Your task to perform on an android device: change keyboard looks Image 0: 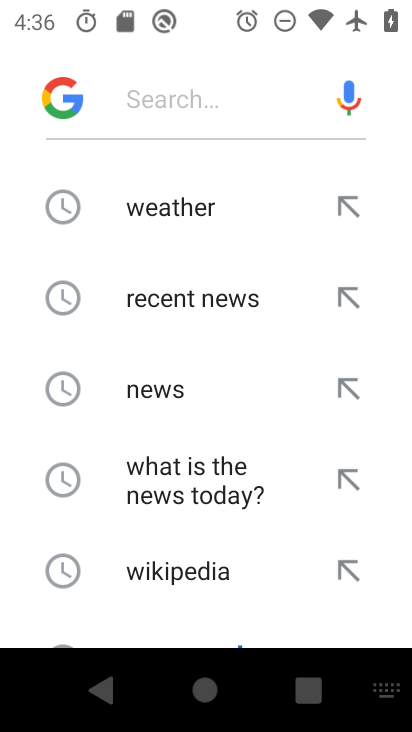
Step 0: press home button
Your task to perform on an android device: change keyboard looks Image 1: 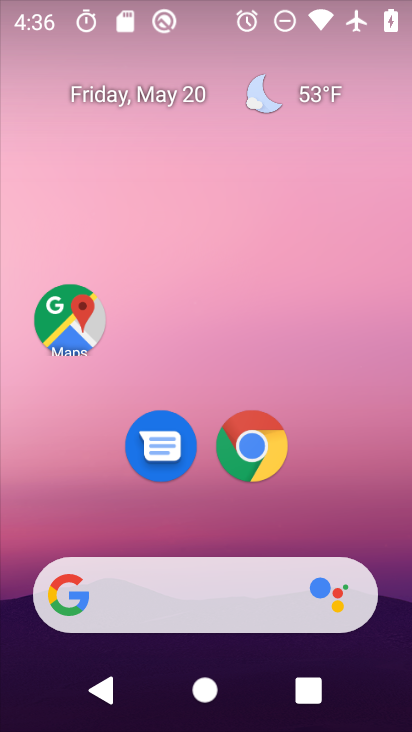
Step 1: drag from (338, 443) to (395, 43)
Your task to perform on an android device: change keyboard looks Image 2: 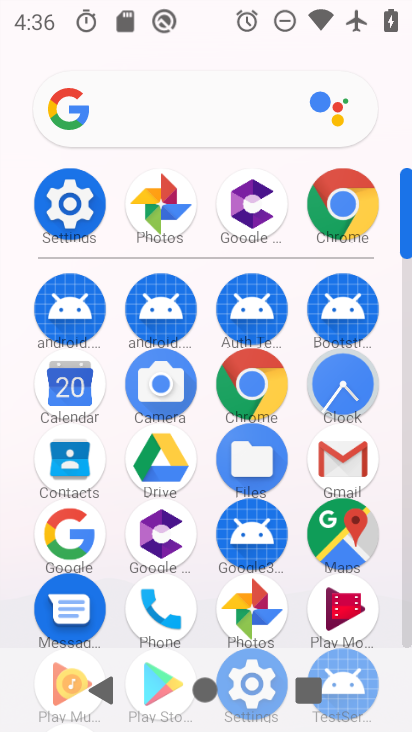
Step 2: click (80, 211)
Your task to perform on an android device: change keyboard looks Image 3: 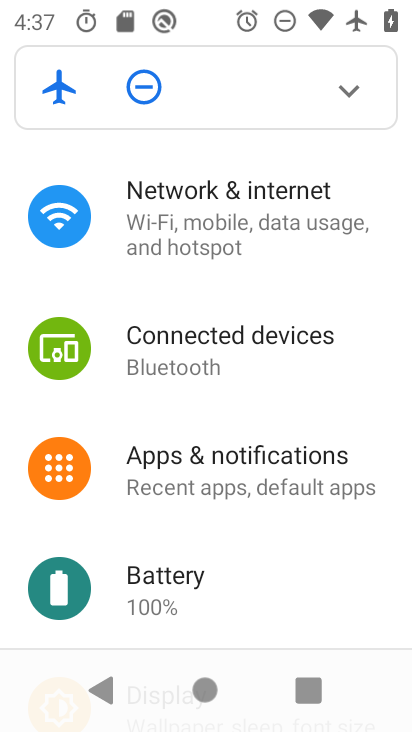
Step 3: drag from (269, 587) to (309, 195)
Your task to perform on an android device: change keyboard looks Image 4: 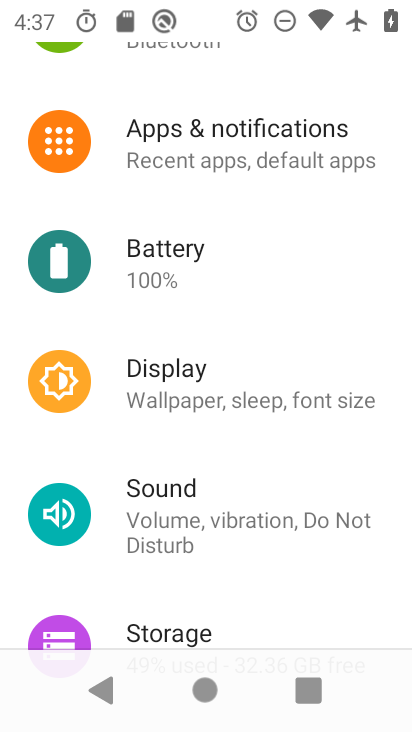
Step 4: drag from (291, 555) to (348, 124)
Your task to perform on an android device: change keyboard looks Image 5: 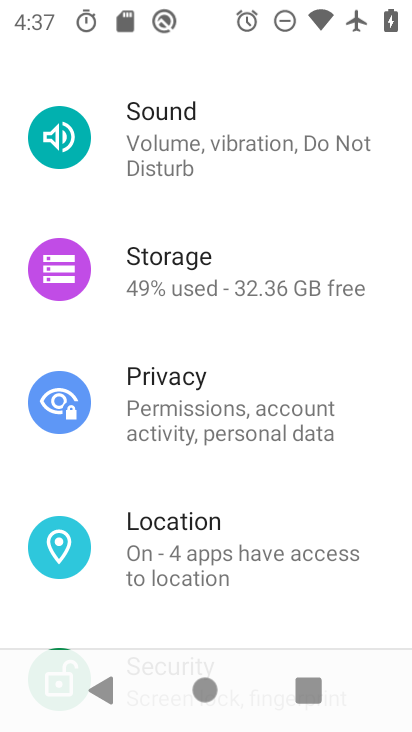
Step 5: drag from (277, 605) to (341, 204)
Your task to perform on an android device: change keyboard looks Image 6: 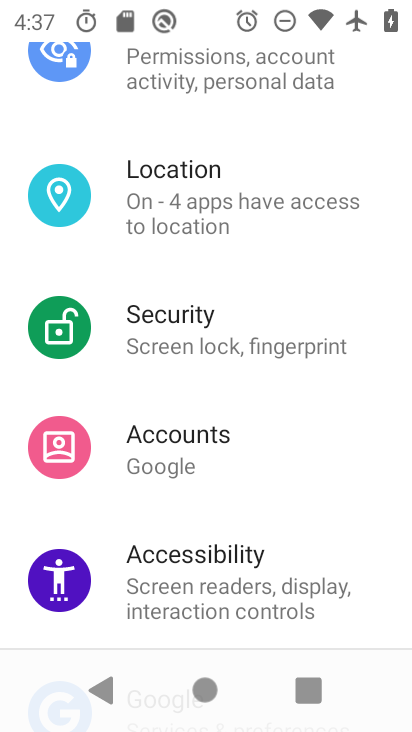
Step 6: drag from (239, 591) to (276, 200)
Your task to perform on an android device: change keyboard looks Image 7: 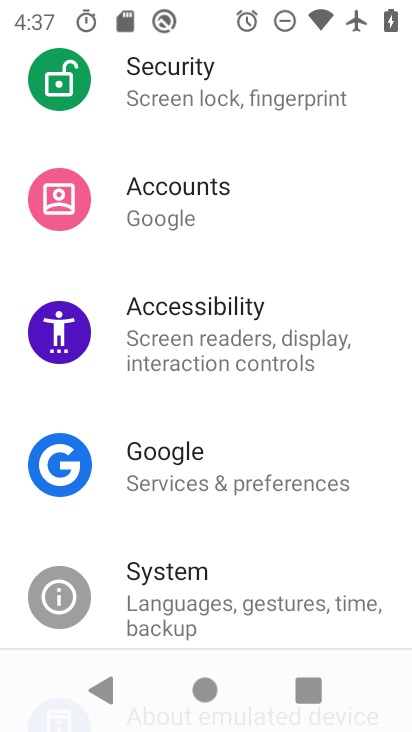
Step 7: drag from (249, 548) to (308, 185)
Your task to perform on an android device: change keyboard looks Image 8: 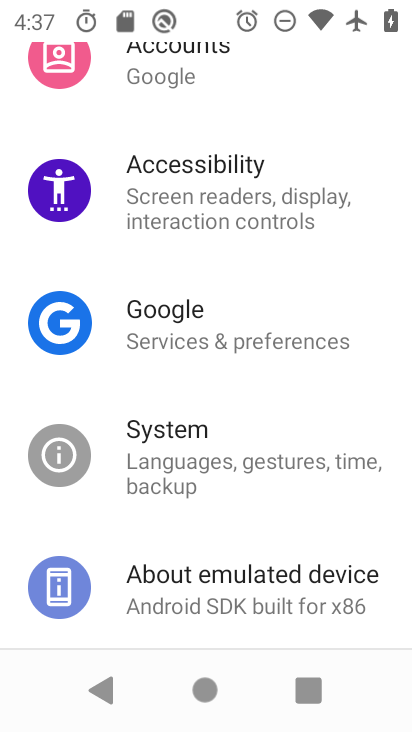
Step 8: click (221, 471)
Your task to perform on an android device: change keyboard looks Image 9: 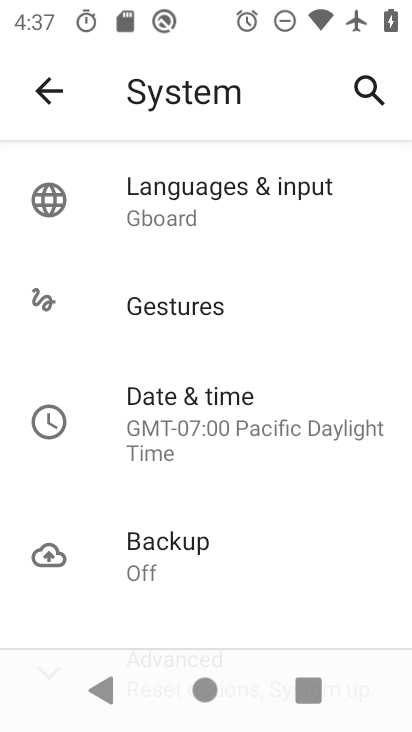
Step 9: click (166, 212)
Your task to perform on an android device: change keyboard looks Image 10: 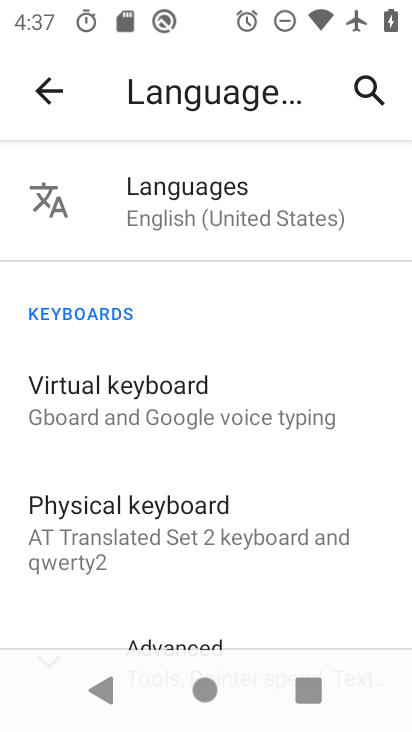
Step 10: drag from (134, 511) to (184, 217)
Your task to perform on an android device: change keyboard looks Image 11: 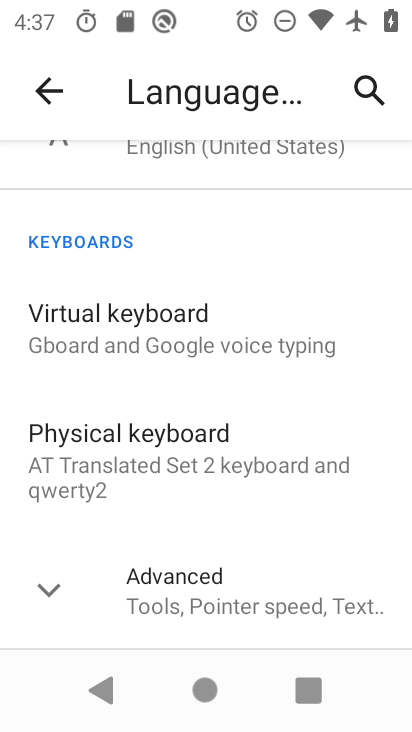
Step 11: click (139, 301)
Your task to perform on an android device: change keyboard looks Image 12: 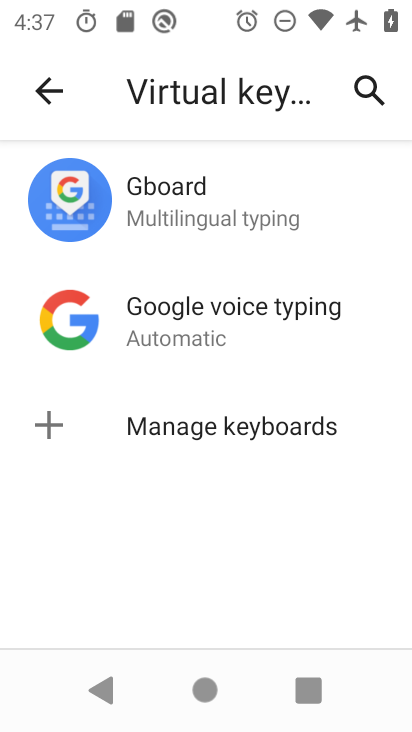
Step 12: click (132, 202)
Your task to perform on an android device: change keyboard looks Image 13: 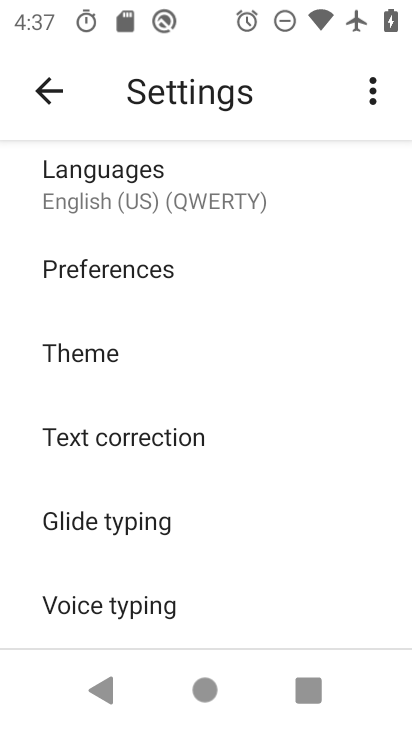
Step 13: click (87, 353)
Your task to perform on an android device: change keyboard looks Image 14: 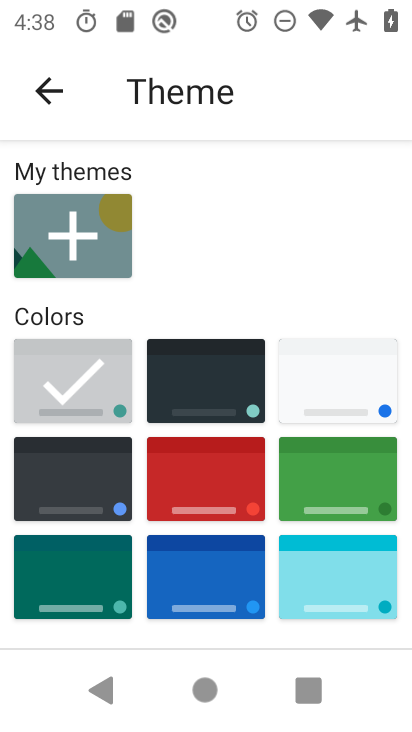
Step 14: click (178, 376)
Your task to perform on an android device: change keyboard looks Image 15: 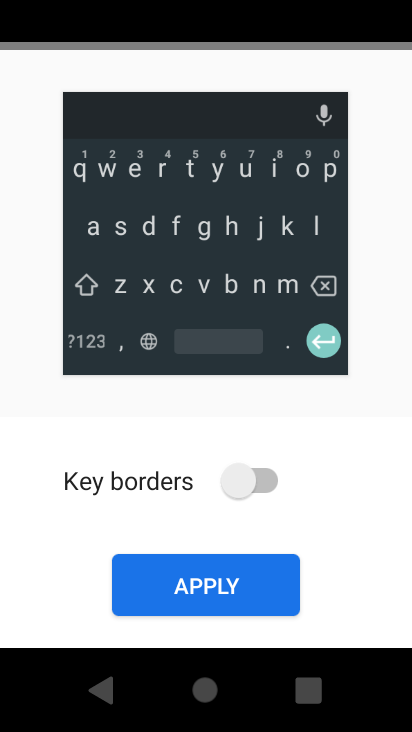
Step 15: click (218, 581)
Your task to perform on an android device: change keyboard looks Image 16: 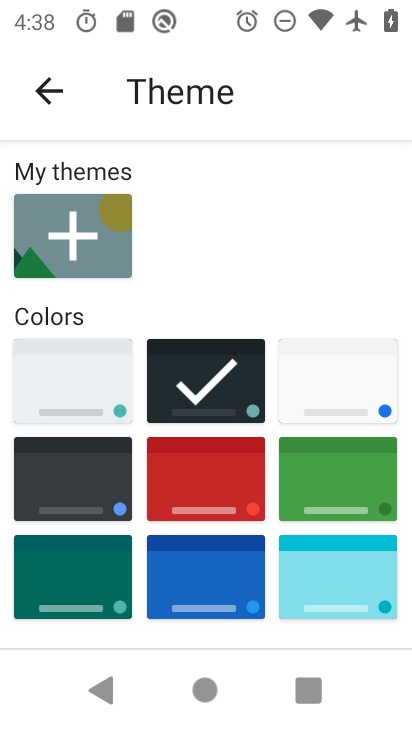
Step 16: task complete